Your task to perform on an android device: turn on translation in the chrome app Image 0: 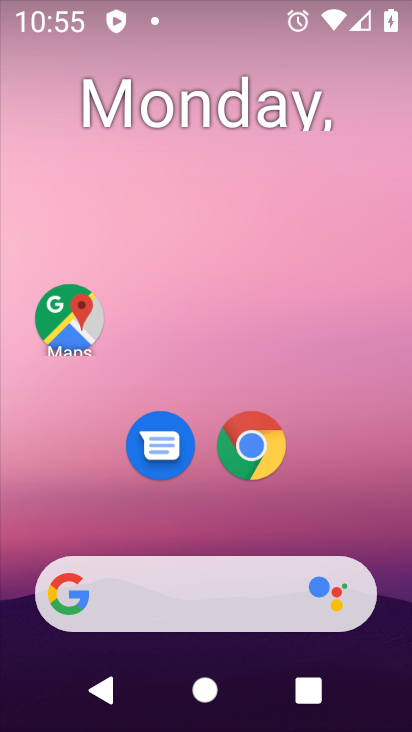
Step 0: click (254, 468)
Your task to perform on an android device: turn on translation in the chrome app Image 1: 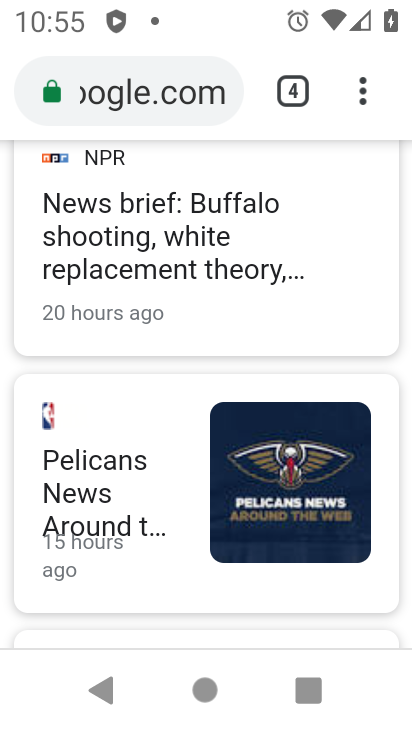
Step 1: click (362, 90)
Your task to perform on an android device: turn on translation in the chrome app Image 2: 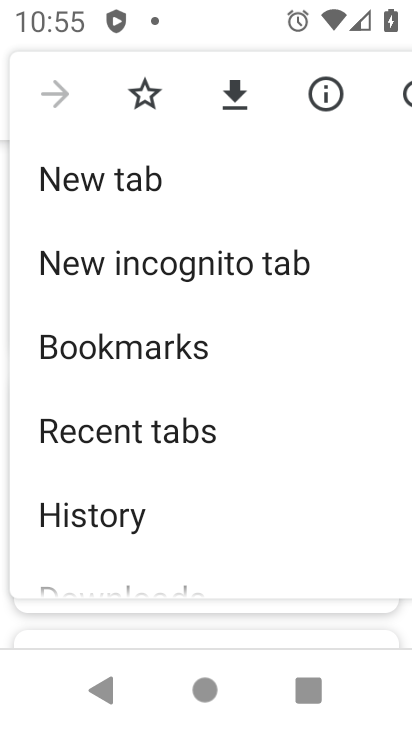
Step 2: drag from (114, 531) to (138, 180)
Your task to perform on an android device: turn on translation in the chrome app Image 3: 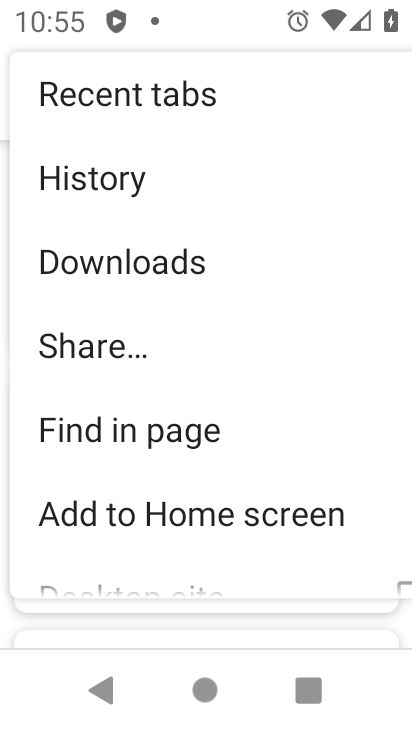
Step 3: drag from (92, 551) to (89, 200)
Your task to perform on an android device: turn on translation in the chrome app Image 4: 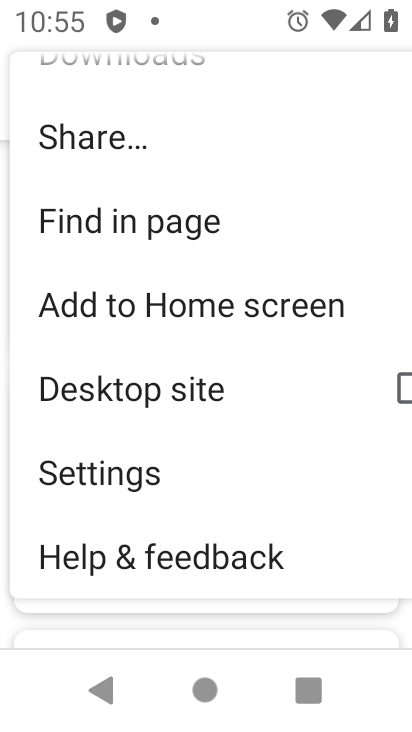
Step 4: click (77, 466)
Your task to perform on an android device: turn on translation in the chrome app Image 5: 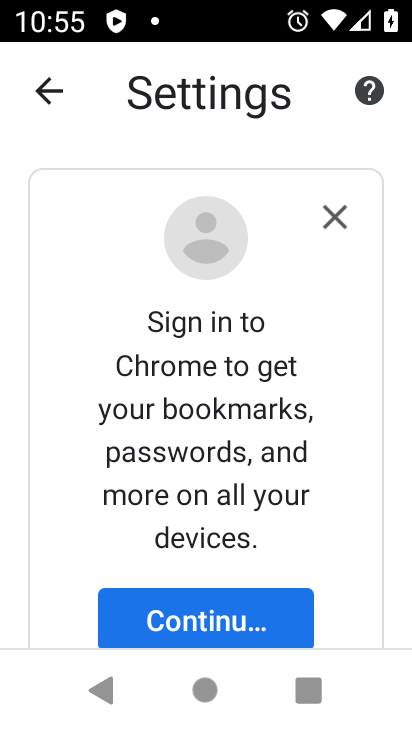
Step 5: drag from (342, 613) to (280, 188)
Your task to perform on an android device: turn on translation in the chrome app Image 6: 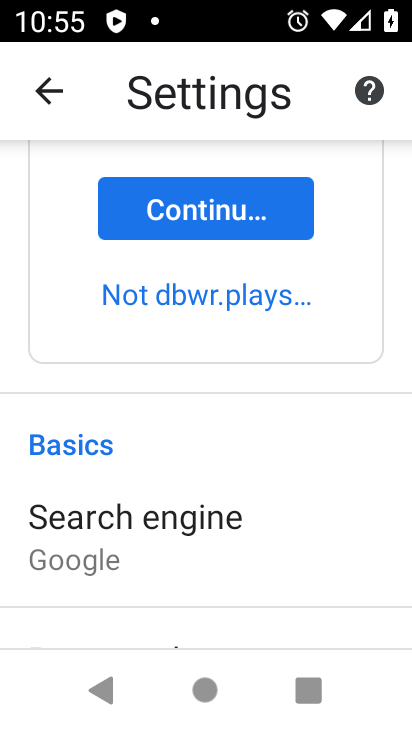
Step 6: drag from (229, 610) to (193, 151)
Your task to perform on an android device: turn on translation in the chrome app Image 7: 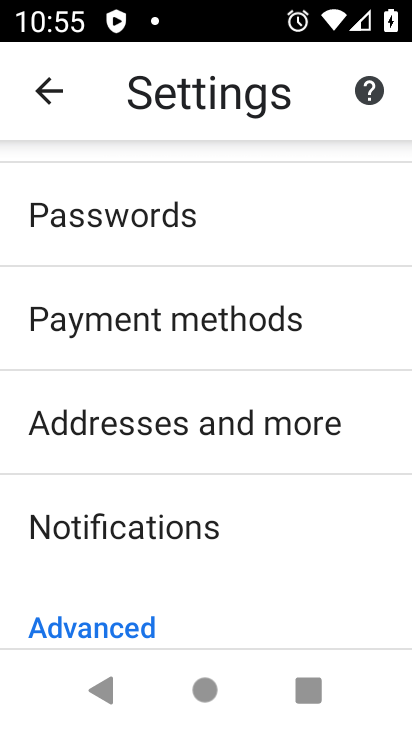
Step 7: drag from (146, 580) to (123, 259)
Your task to perform on an android device: turn on translation in the chrome app Image 8: 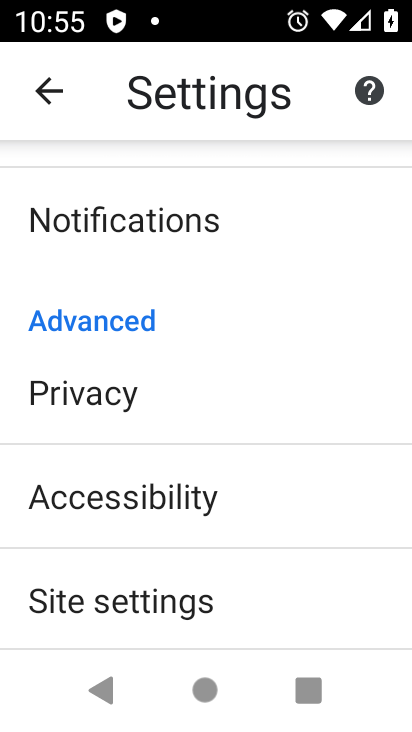
Step 8: drag from (164, 585) to (137, 225)
Your task to perform on an android device: turn on translation in the chrome app Image 9: 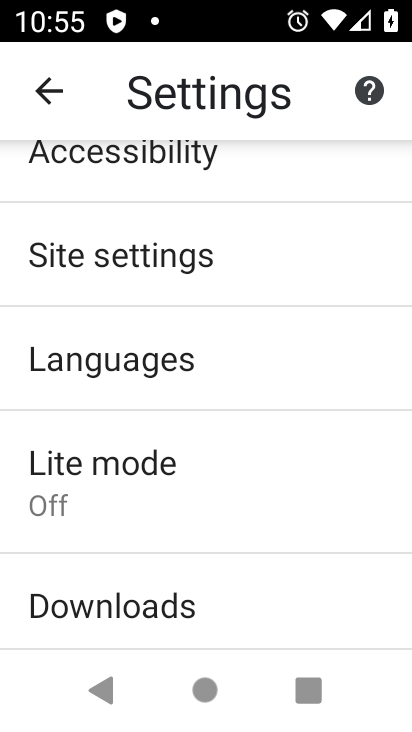
Step 9: click (117, 366)
Your task to perform on an android device: turn on translation in the chrome app Image 10: 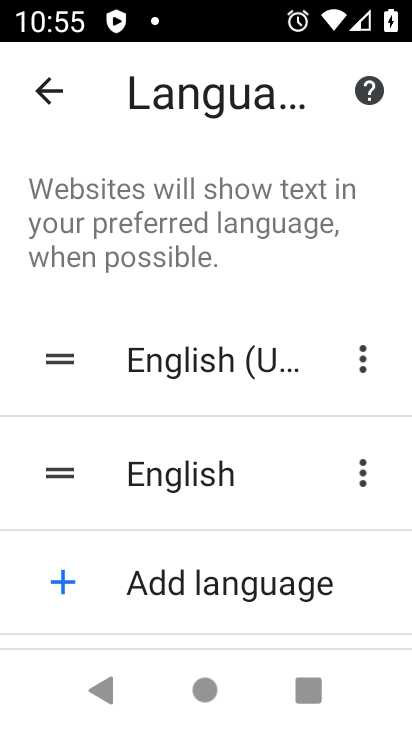
Step 10: task complete